Your task to perform on an android device: Open wifi settings Image 0: 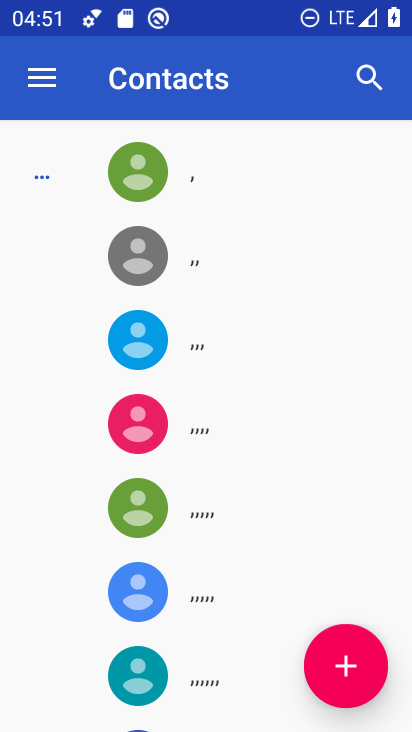
Step 0: press home button
Your task to perform on an android device: Open wifi settings Image 1: 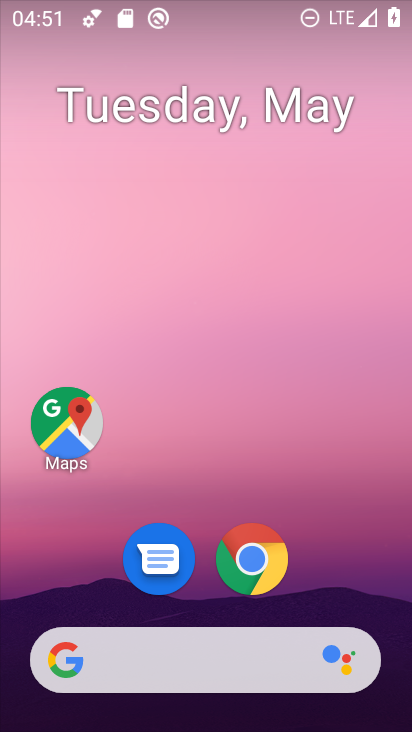
Step 1: drag from (202, 689) to (197, 68)
Your task to perform on an android device: Open wifi settings Image 2: 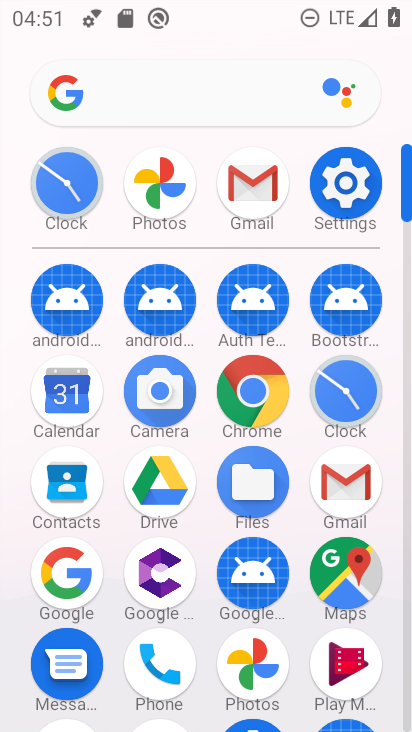
Step 2: click (335, 176)
Your task to perform on an android device: Open wifi settings Image 3: 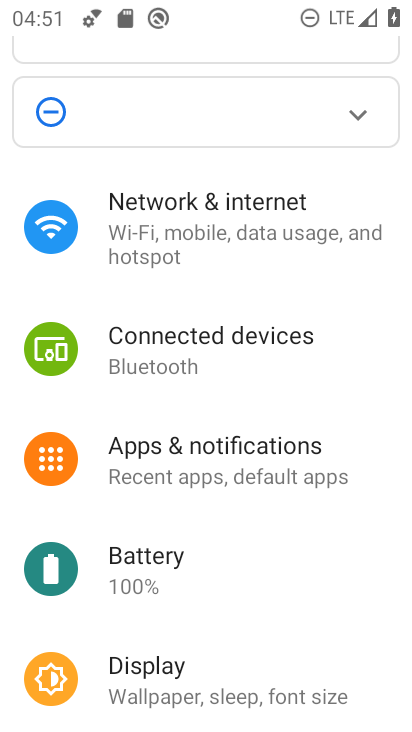
Step 3: click (174, 234)
Your task to perform on an android device: Open wifi settings Image 4: 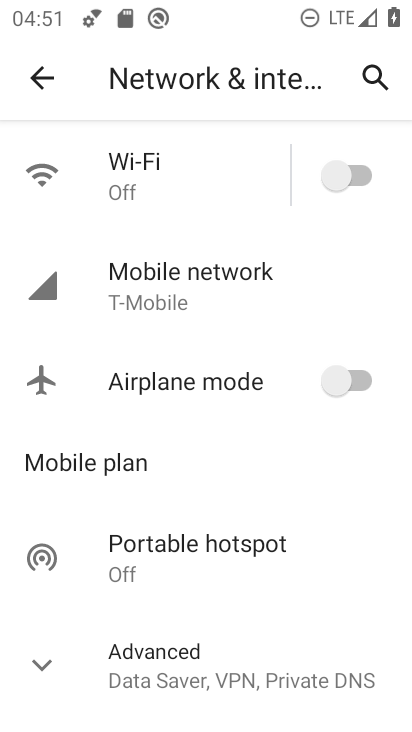
Step 4: click (128, 173)
Your task to perform on an android device: Open wifi settings Image 5: 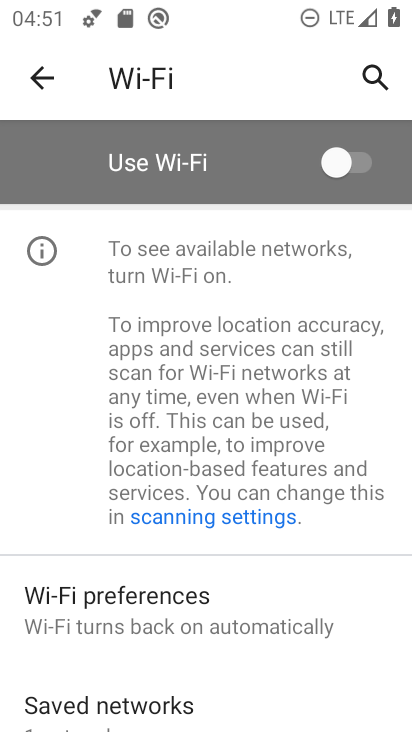
Step 5: task complete